Your task to perform on an android device: Open the Play Movies app and select the watchlist tab. Image 0: 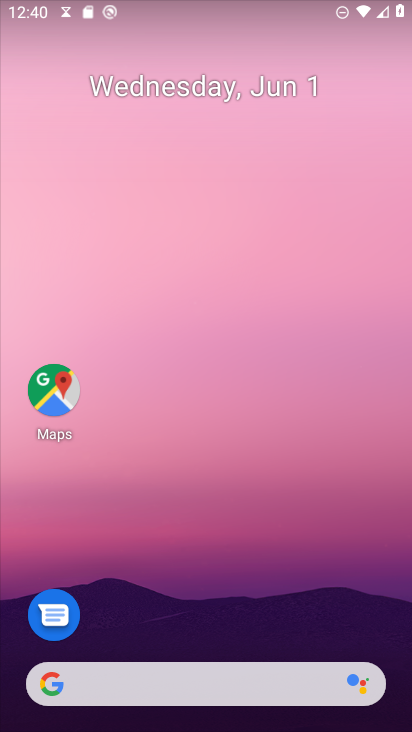
Step 0: drag from (183, 620) to (273, 34)
Your task to perform on an android device: Open the Play Movies app and select the watchlist tab. Image 1: 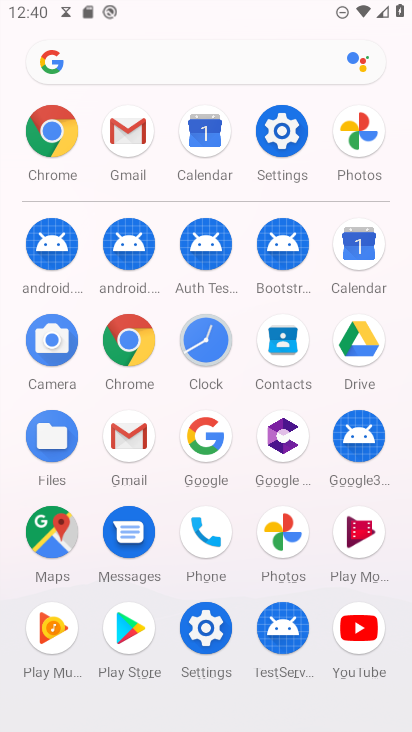
Step 1: click (370, 542)
Your task to perform on an android device: Open the Play Movies app and select the watchlist tab. Image 2: 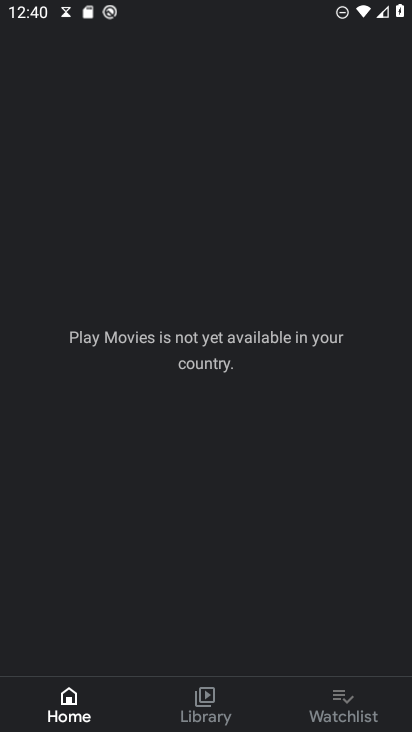
Step 2: click (351, 719)
Your task to perform on an android device: Open the Play Movies app and select the watchlist tab. Image 3: 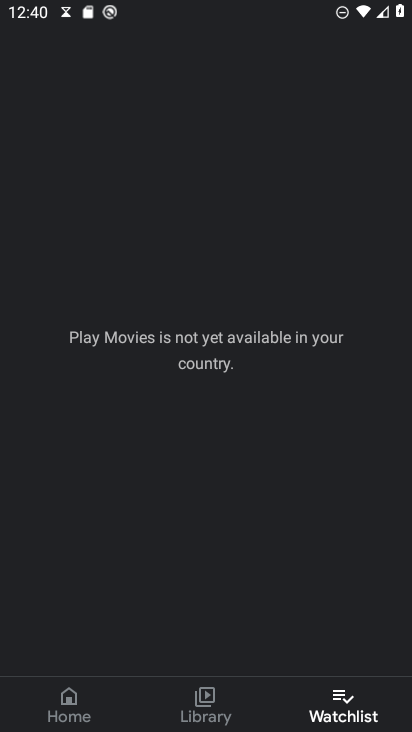
Step 3: task complete